Your task to perform on an android device: turn off notifications in google photos Image 0: 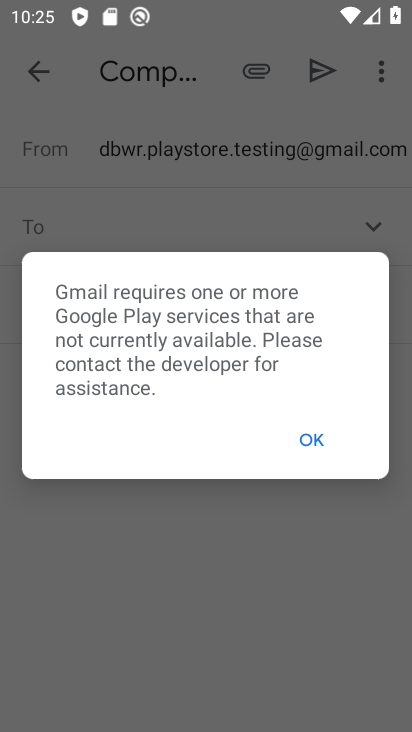
Step 0: click (303, 441)
Your task to perform on an android device: turn off notifications in google photos Image 1: 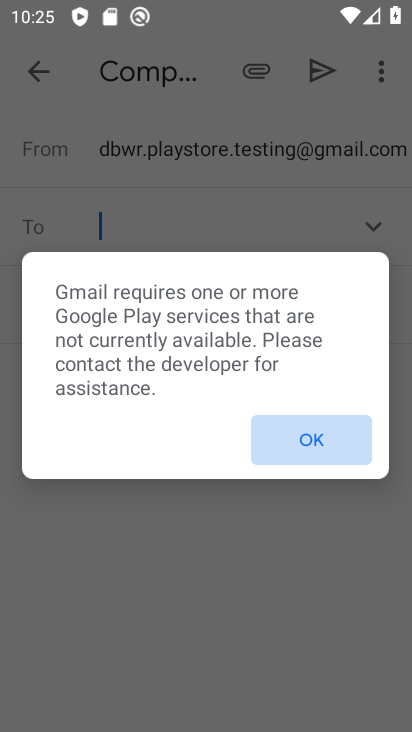
Step 1: click (311, 449)
Your task to perform on an android device: turn off notifications in google photos Image 2: 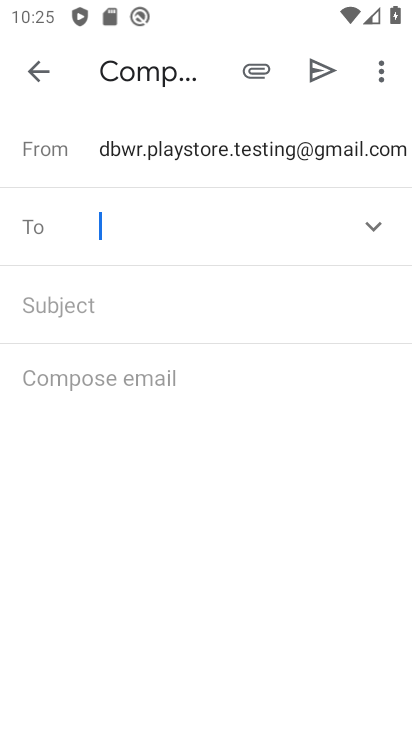
Step 2: click (311, 449)
Your task to perform on an android device: turn off notifications in google photos Image 3: 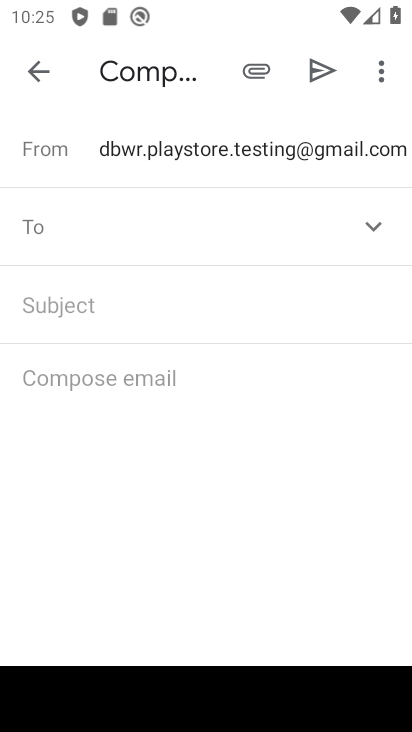
Step 3: click (46, 73)
Your task to perform on an android device: turn off notifications in google photos Image 4: 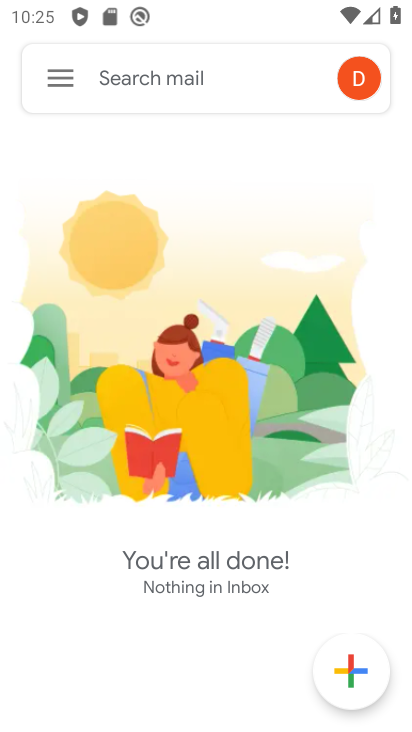
Step 4: click (58, 83)
Your task to perform on an android device: turn off notifications in google photos Image 5: 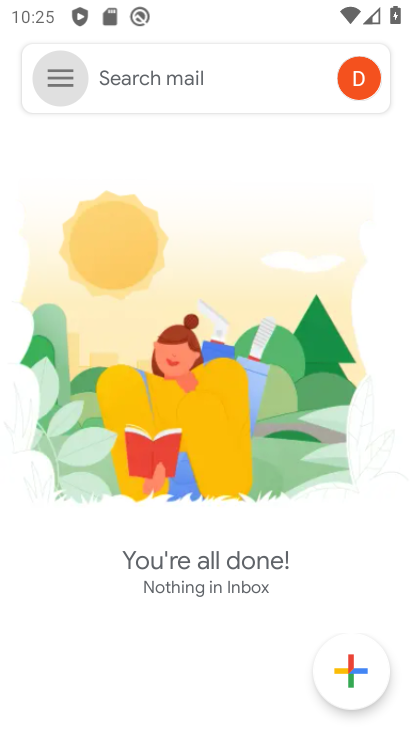
Step 5: click (58, 82)
Your task to perform on an android device: turn off notifications in google photos Image 6: 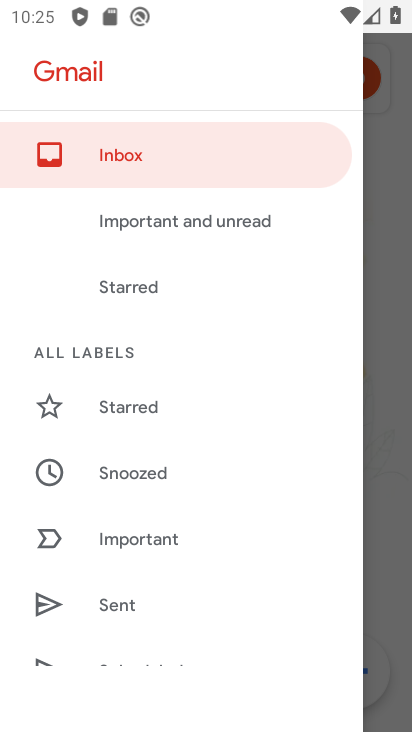
Step 6: press home button
Your task to perform on an android device: turn off notifications in google photos Image 7: 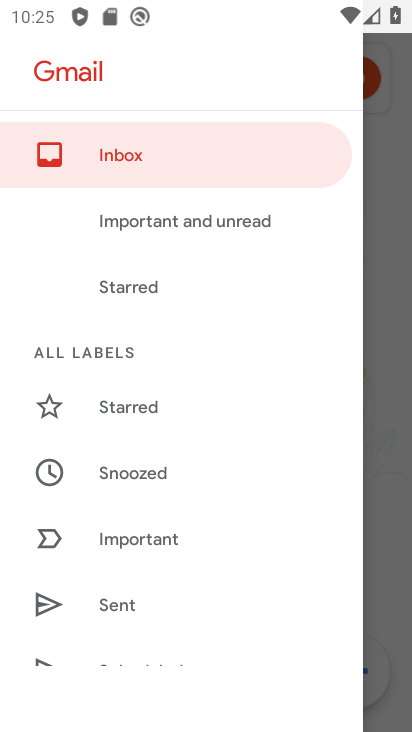
Step 7: press home button
Your task to perform on an android device: turn off notifications in google photos Image 8: 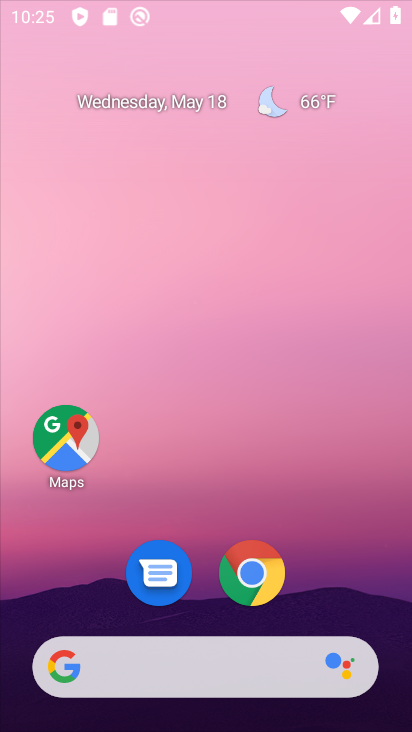
Step 8: press home button
Your task to perform on an android device: turn off notifications in google photos Image 9: 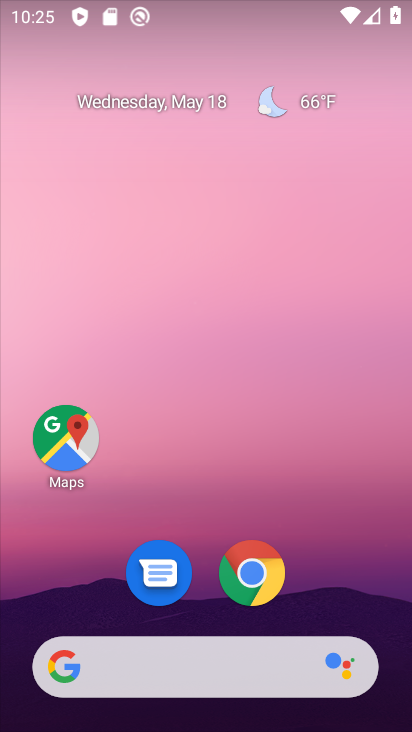
Step 9: drag from (311, 659) to (180, 127)
Your task to perform on an android device: turn off notifications in google photos Image 10: 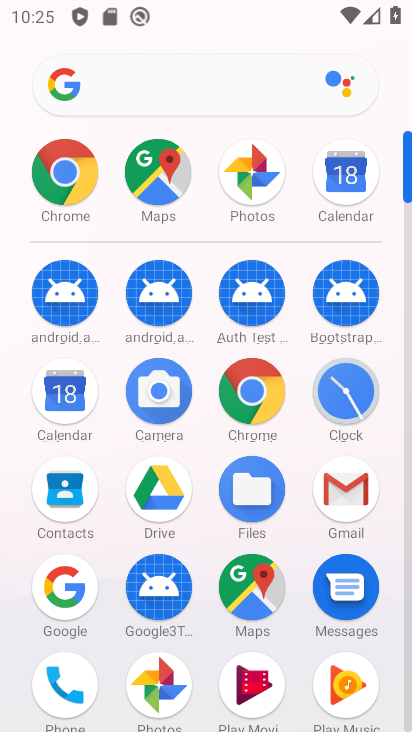
Step 10: drag from (185, 498) to (184, 134)
Your task to perform on an android device: turn off notifications in google photos Image 11: 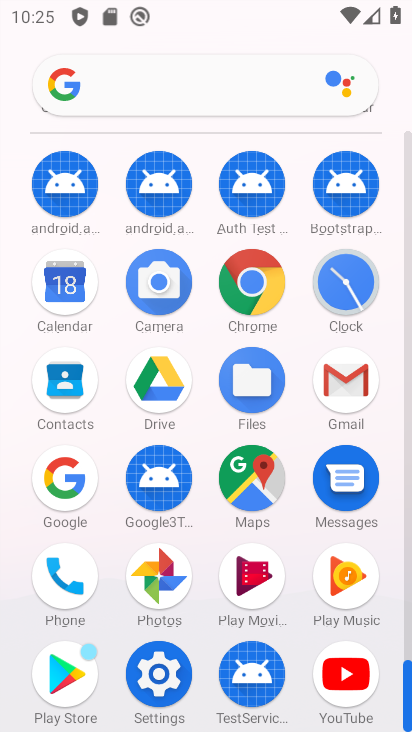
Step 11: click (163, 568)
Your task to perform on an android device: turn off notifications in google photos Image 12: 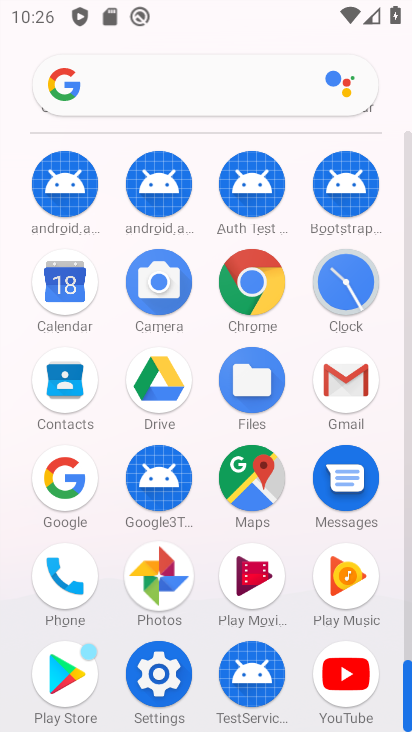
Step 12: click (161, 574)
Your task to perform on an android device: turn off notifications in google photos Image 13: 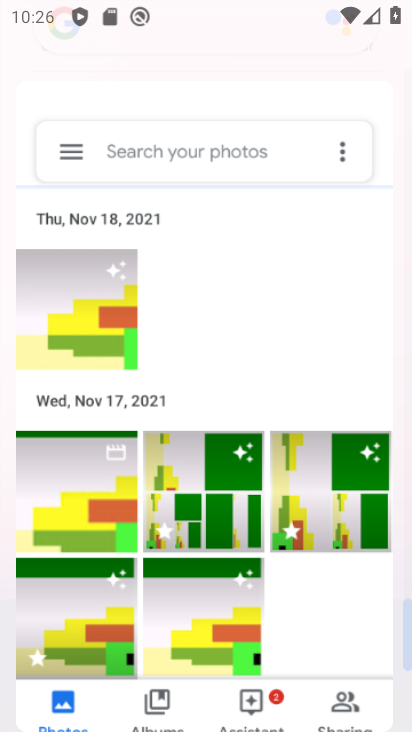
Step 13: click (161, 574)
Your task to perform on an android device: turn off notifications in google photos Image 14: 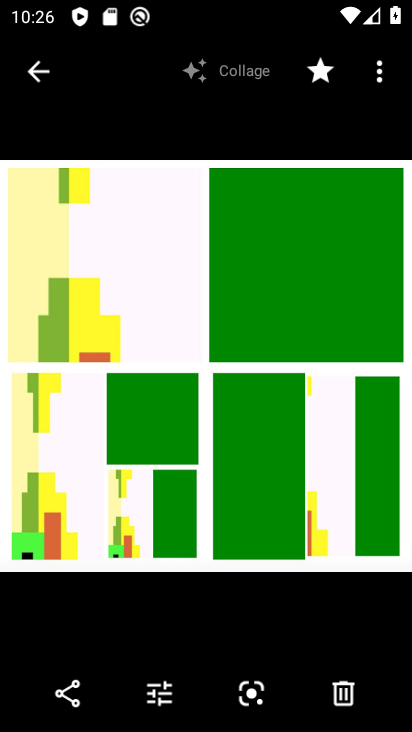
Step 14: click (48, 71)
Your task to perform on an android device: turn off notifications in google photos Image 15: 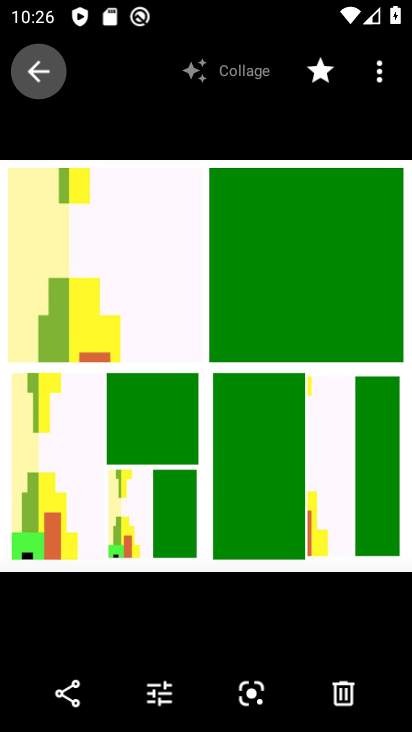
Step 15: click (48, 71)
Your task to perform on an android device: turn off notifications in google photos Image 16: 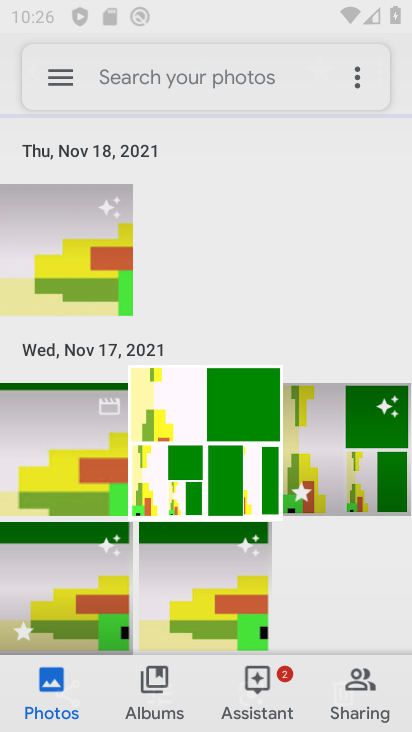
Step 16: click (48, 71)
Your task to perform on an android device: turn off notifications in google photos Image 17: 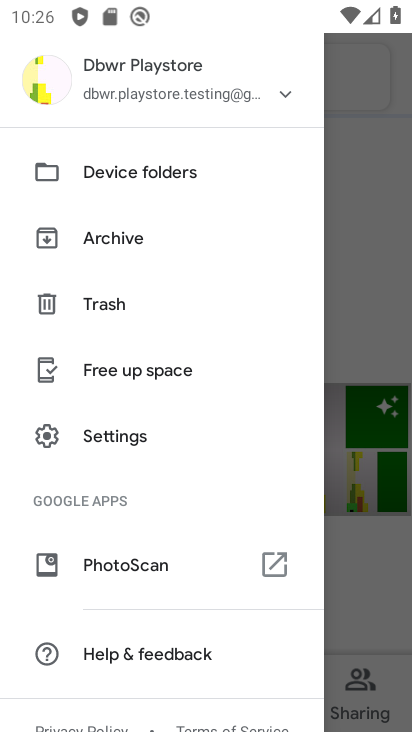
Step 17: click (372, 292)
Your task to perform on an android device: turn off notifications in google photos Image 18: 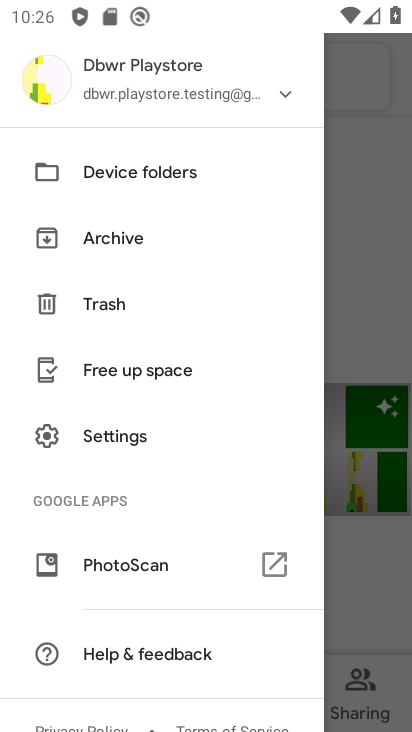
Step 18: click (372, 292)
Your task to perform on an android device: turn off notifications in google photos Image 19: 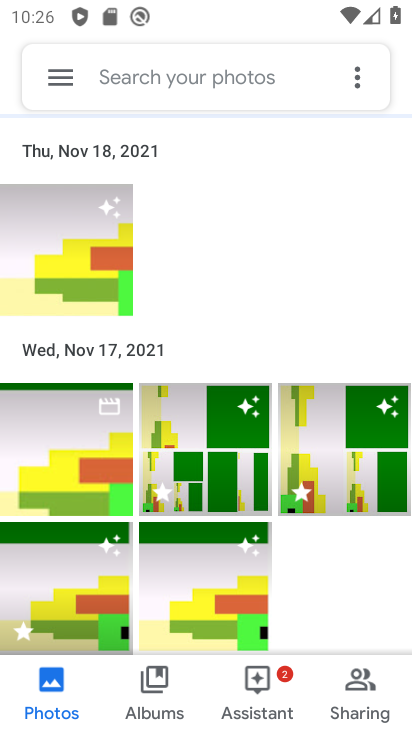
Step 19: click (54, 83)
Your task to perform on an android device: turn off notifications in google photos Image 20: 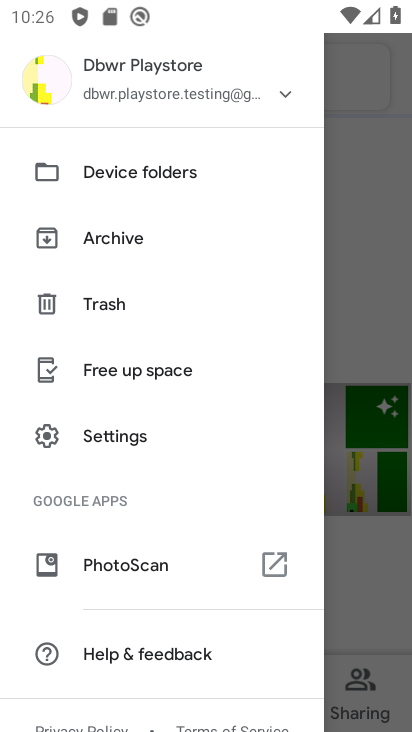
Step 20: click (372, 243)
Your task to perform on an android device: turn off notifications in google photos Image 21: 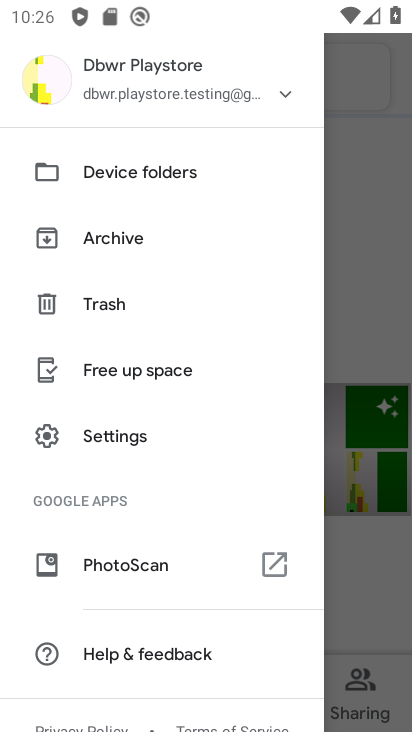
Step 21: click (377, 247)
Your task to perform on an android device: turn off notifications in google photos Image 22: 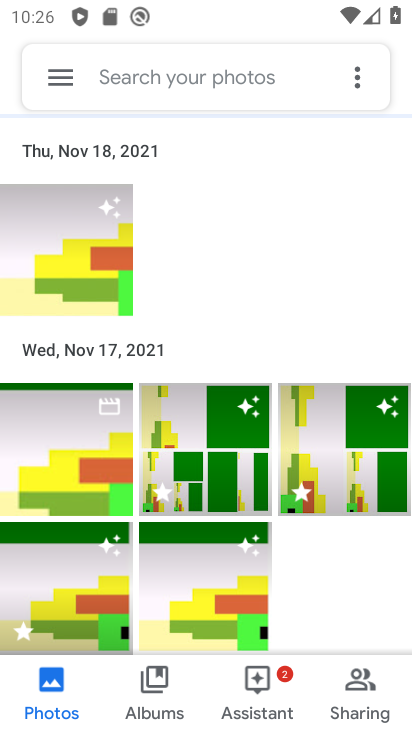
Step 22: click (375, 251)
Your task to perform on an android device: turn off notifications in google photos Image 23: 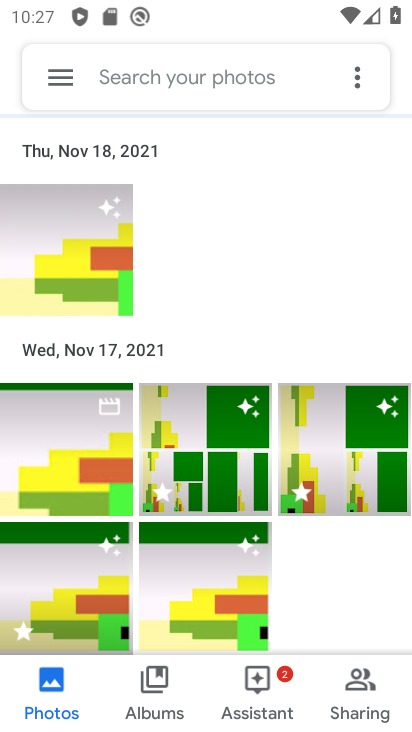
Step 23: click (63, 80)
Your task to perform on an android device: turn off notifications in google photos Image 24: 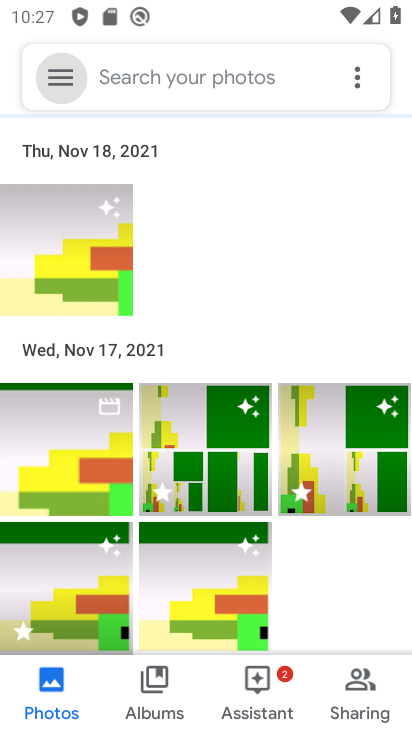
Step 24: click (63, 80)
Your task to perform on an android device: turn off notifications in google photos Image 25: 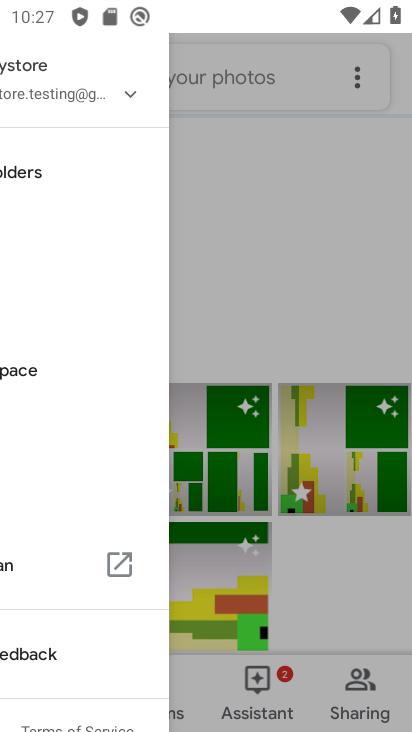
Step 25: click (64, 79)
Your task to perform on an android device: turn off notifications in google photos Image 26: 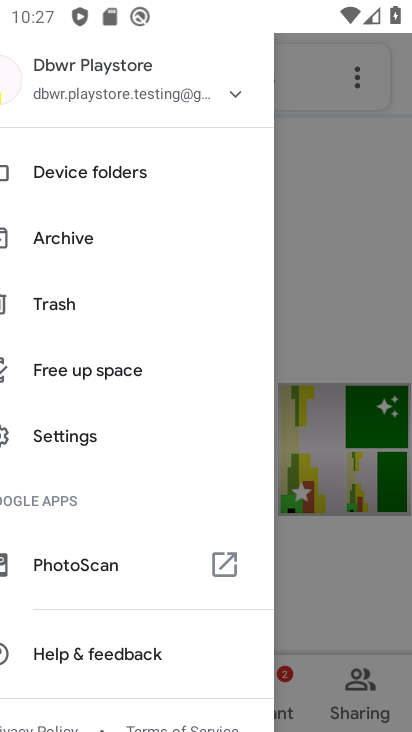
Step 26: click (64, 79)
Your task to perform on an android device: turn off notifications in google photos Image 27: 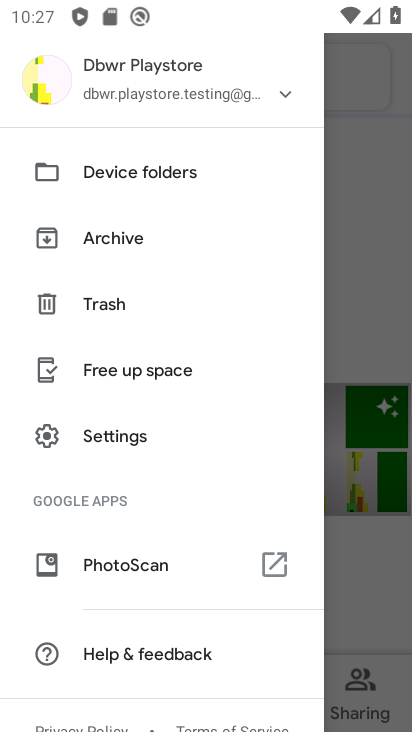
Step 27: drag from (133, 461) to (133, 57)
Your task to perform on an android device: turn off notifications in google photos Image 28: 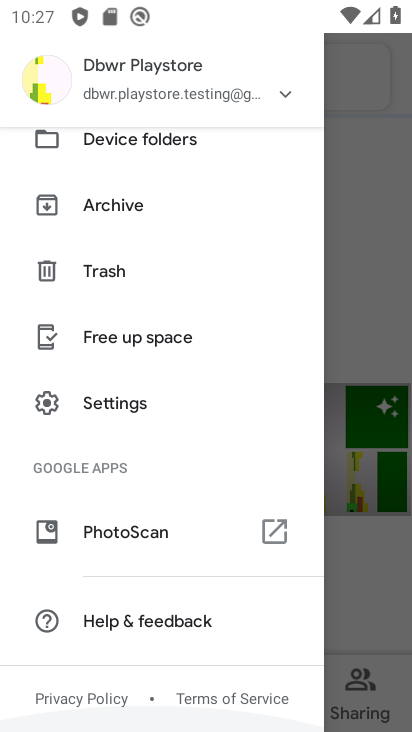
Step 28: drag from (178, 322) to (179, 90)
Your task to perform on an android device: turn off notifications in google photos Image 29: 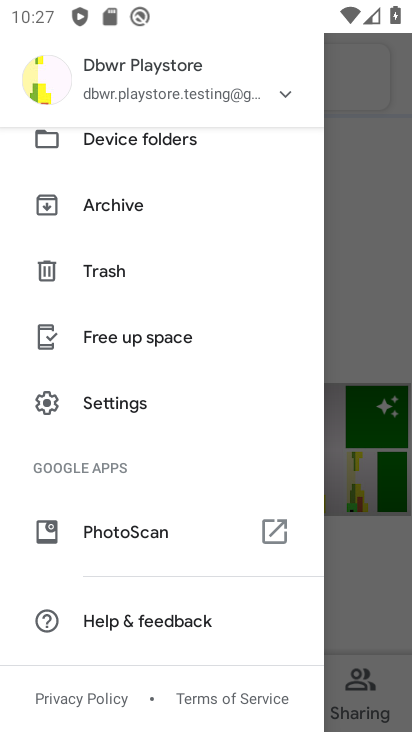
Step 29: click (115, 404)
Your task to perform on an android device: turn off notifications in google photos Image 30: 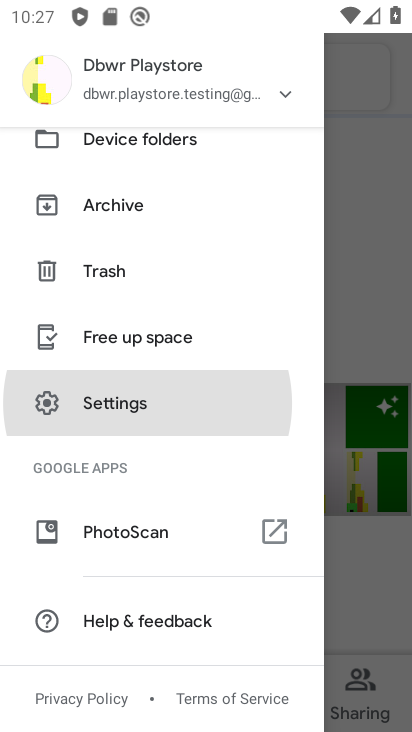
Step 30: click (115, 404)
Your task to perform on an android device: turn off notifications in google photos Image 31: 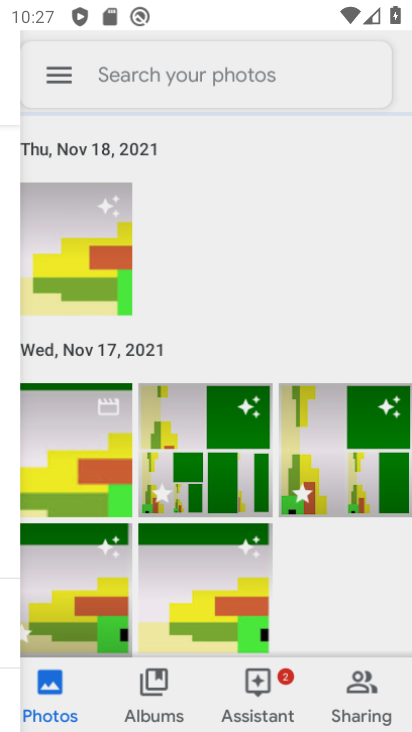
Step 31: click (114, 398)
Your task to perform on an android device: turn off notifications in google photos Image 32: 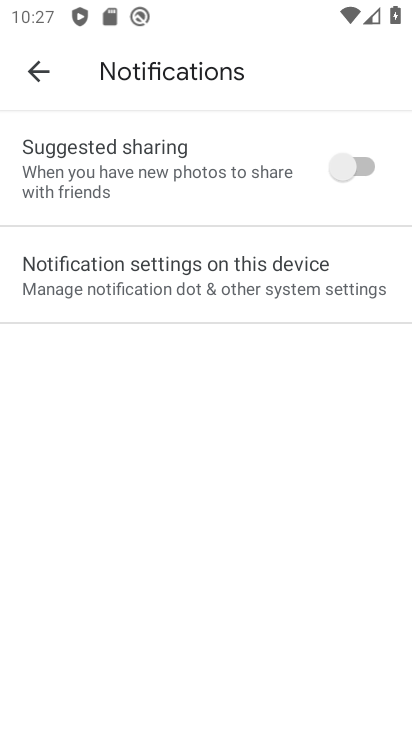
Step 32: click (244, 263)
Your task to perform on an android device: turn off notifications in google photos Image 33: 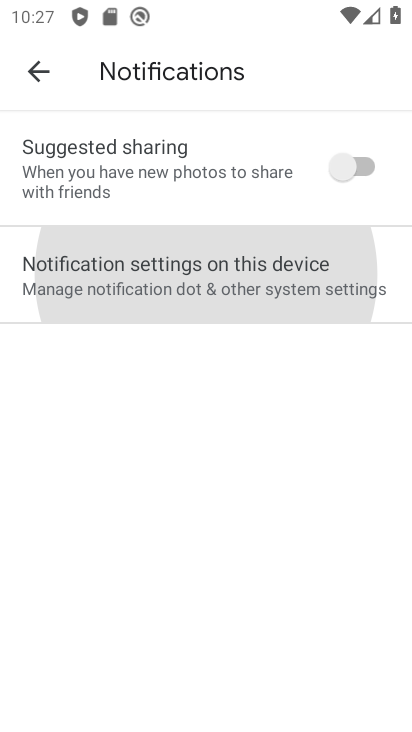
Step 33: click (241, 263)
Your task to perform on an android device: turn off notifications in google photos Image 34: 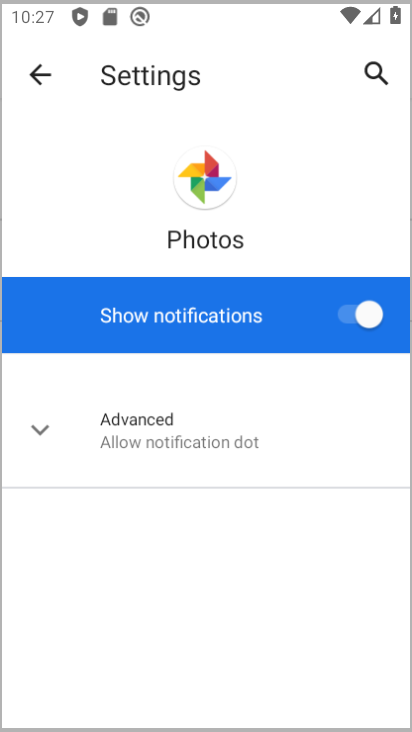
Step 34: click (242, 259)
Your task to perform on an android device: turn off notifications in google photos Image 35: 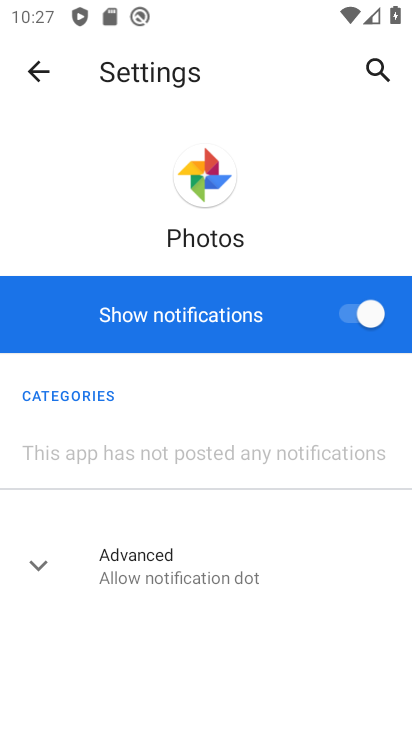
Step 35: click (370, 308)
Your task to perform on an android device: turn off notifications in google photos Image 36: 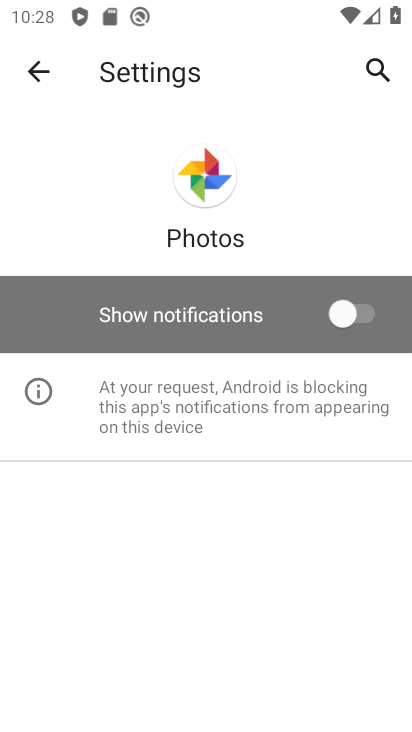
Step 36: click (32, 70)
Your task to perform on an android device: turn off notifications in google photos Image 37: 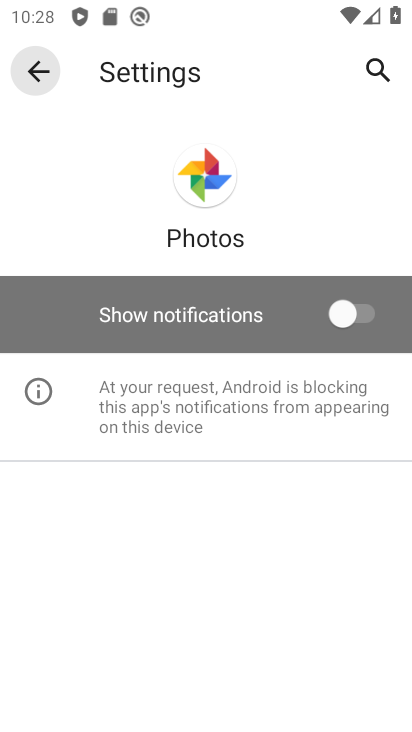
Step 37: click (32, 70)
Your task to perform on an android device: turn off notifications in google photos Image 38: 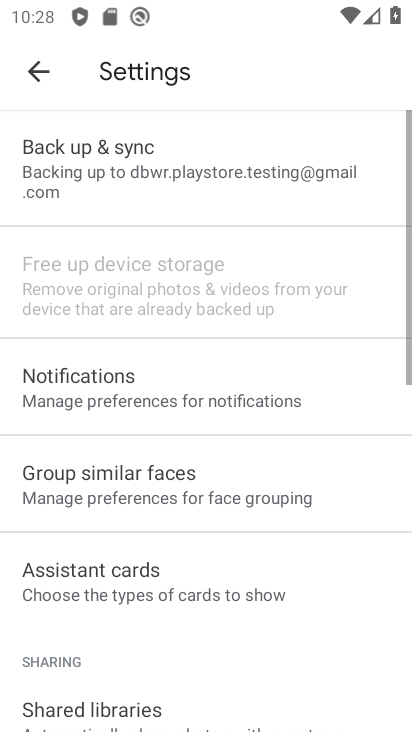
Step 38: click (32, 70)
Your task to perform on an android device: turn off notifications in google photos Image 39: 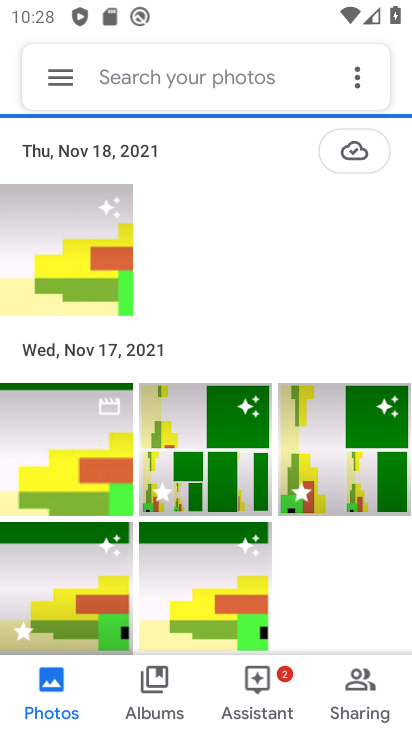
Step 39: press back button
Your task to perform on an android device: turn off notifications in google photos Image 40: 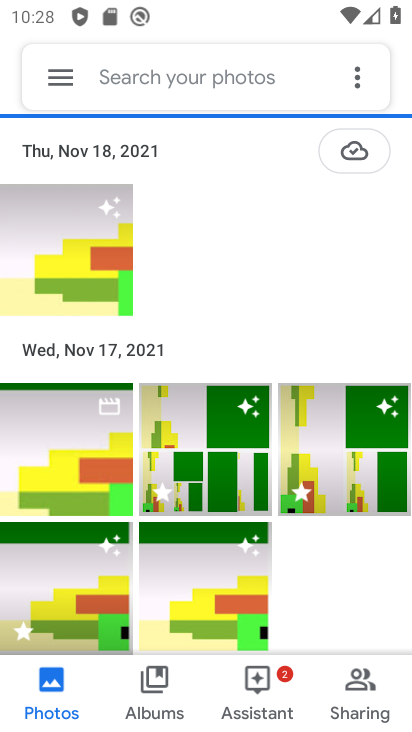
Step 40: press home button
Your task to perform on an android device: turn off notifications in google photos Image 41: 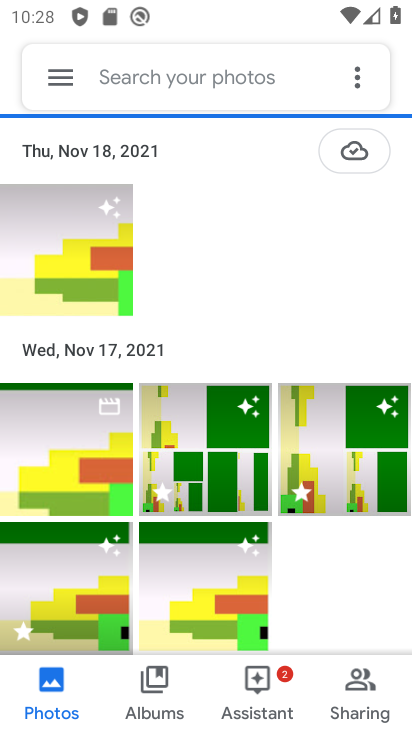
Step 41: click (33, 73)
Your task to perform on an android device: turn off notifications in google photos Image 42: 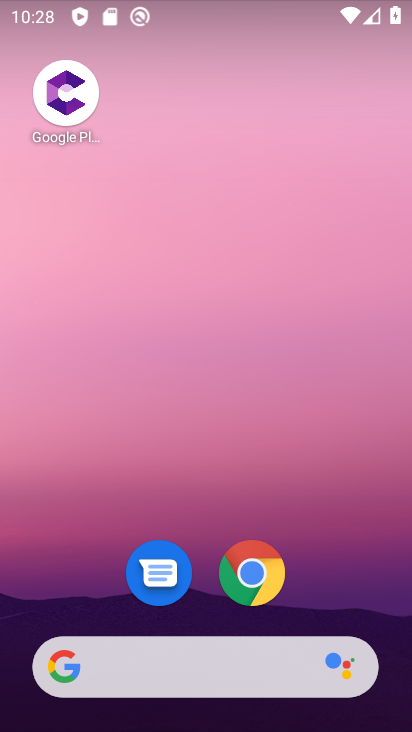
Step 42: drag from (223, 296) to (148, 79)
Your task to perform on an android device: turn off notifications in google photos Image 43: 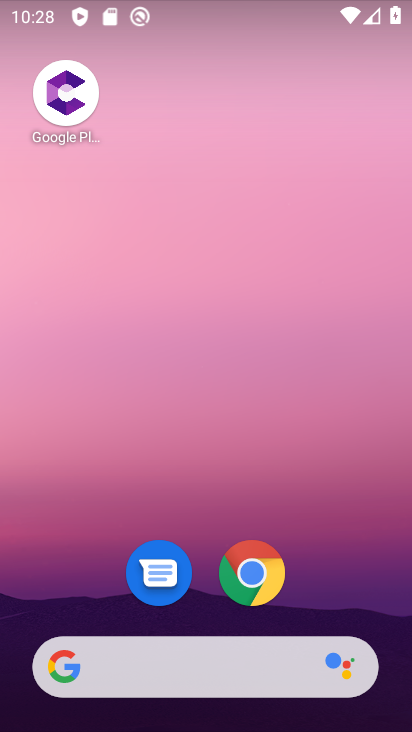
Step 43: drag from (322, 494) to (156, 54)
Your task to perform on an android device: turn off notifications in google photos Image 44: 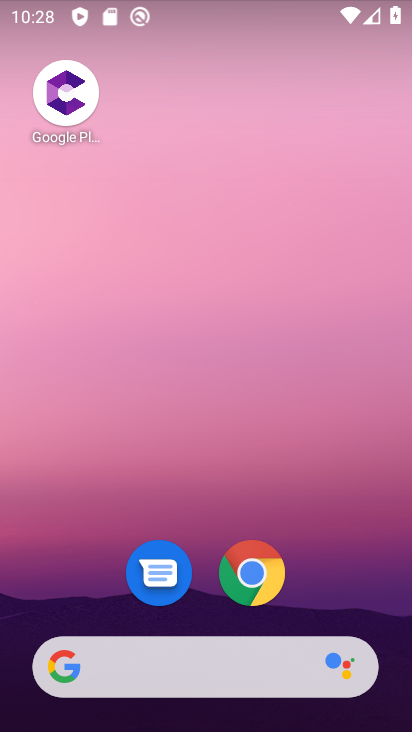
Step 44: drag from (190, 271) to (121, 17)
Your task to perform on an android device: turn off notifications in google photos Image 45: 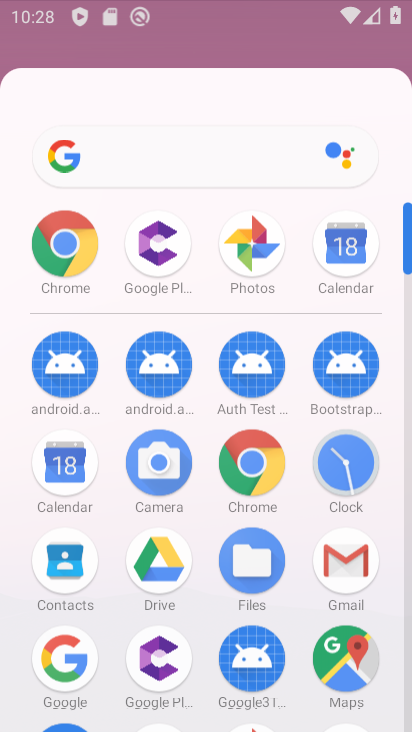
Step 45: drag from (241, 389) to (150, 25)
Your task to perform on an android device: turn off notifications in google photos Image 46: 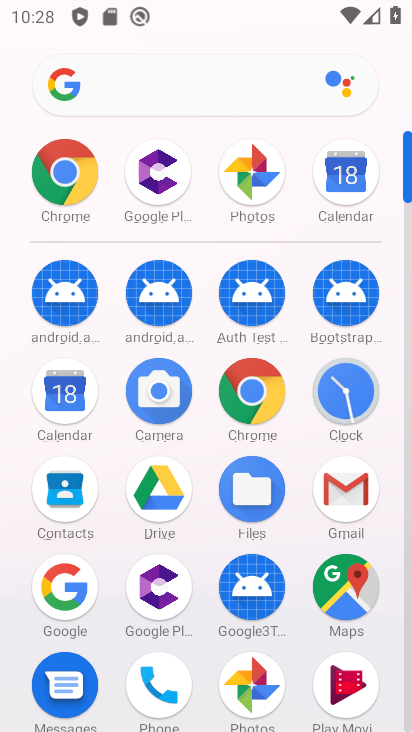
Step 46: drag from (254, 346) to (85, 48)
Your task to perform on an android device: turn off notifications in google photos Image 47: 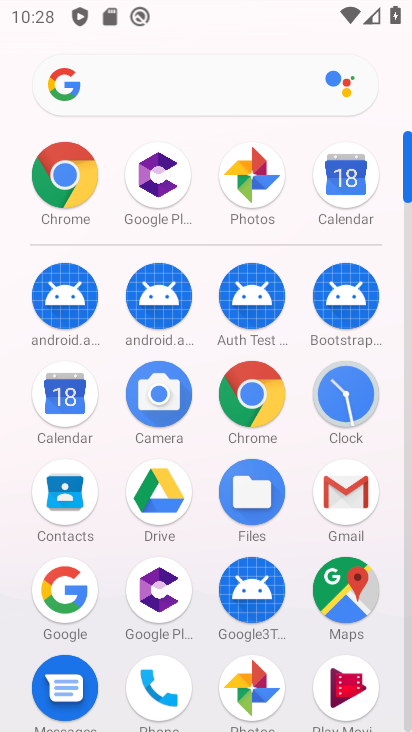
Step 47: drag from (293, 486) to (89, 41)
Your task to perform on an android device: turn off notifications in google photos Image 48: 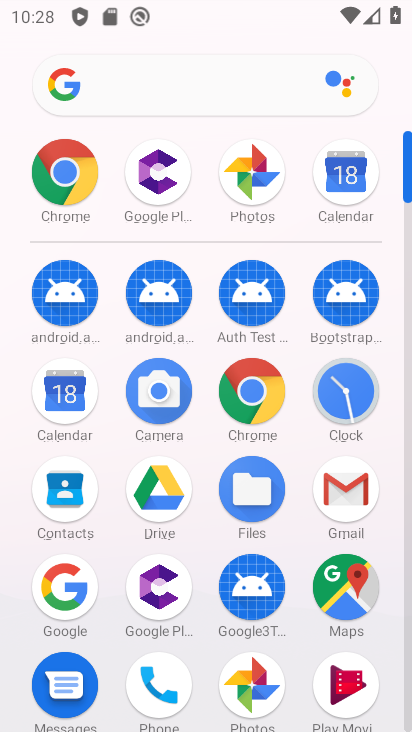
Step 48: click (240, 679)
Your task to perform on an android device: turn off notifications in google photos Image 49: 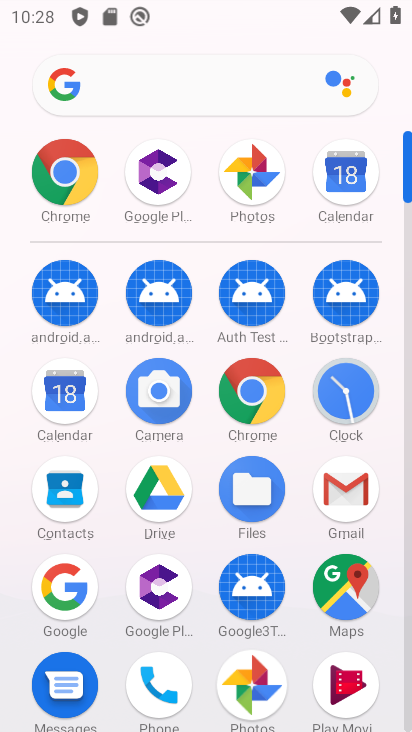
Step 49: click (240, 679)
Your task to perform on an android device: turn off notifications in google photos Image 50: 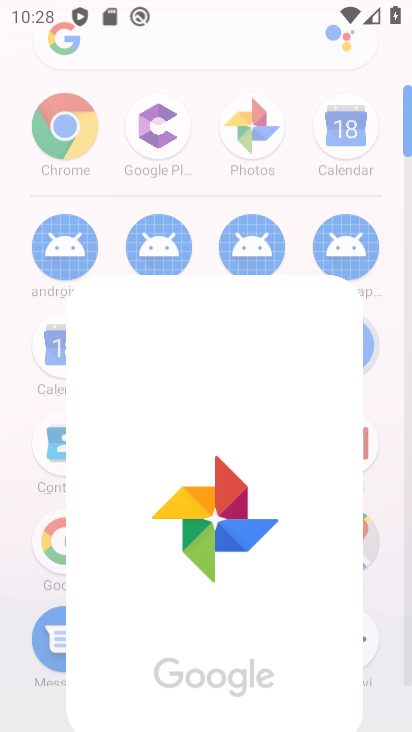
Step 50: click (240, 679)
Your task to perform on an android device: turn off notifications in google photos Image 51: 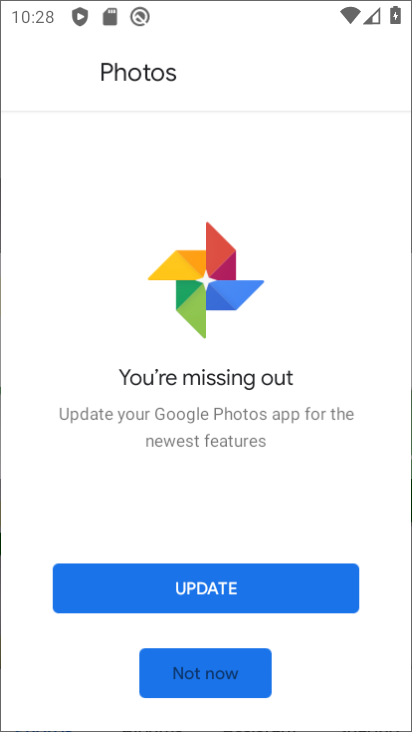
Step 51: click (240, 679)
Your task to perform on an android device: turn off notifications in google photos Image 52: 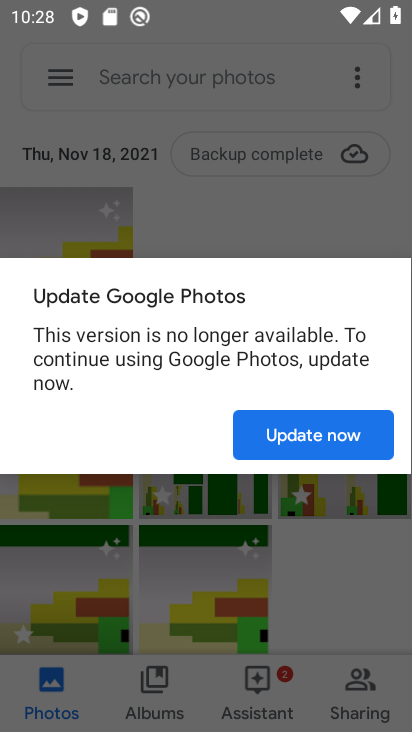
Step 52: click (296, 429)
Your task to perform on an android device: turn off notifications in google photos Image 53: 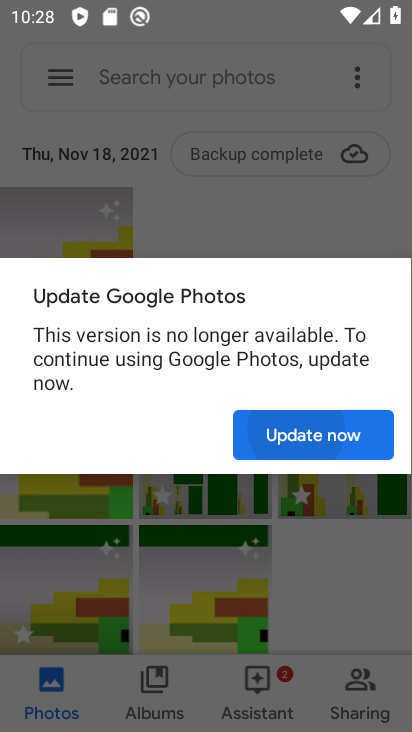
Step 53: click (296, 429)
Your task to perform on an android device: turn off notifications in google photos Image 54: 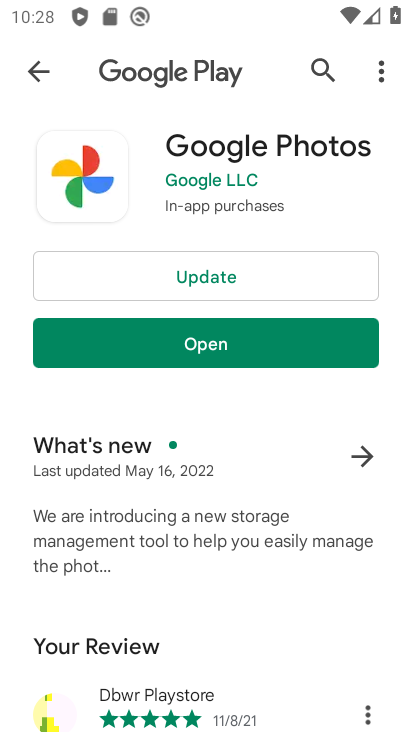
Step 54: click (225, 281)
Your task to perform on an android device: turn off notifications in google photos Image 55: 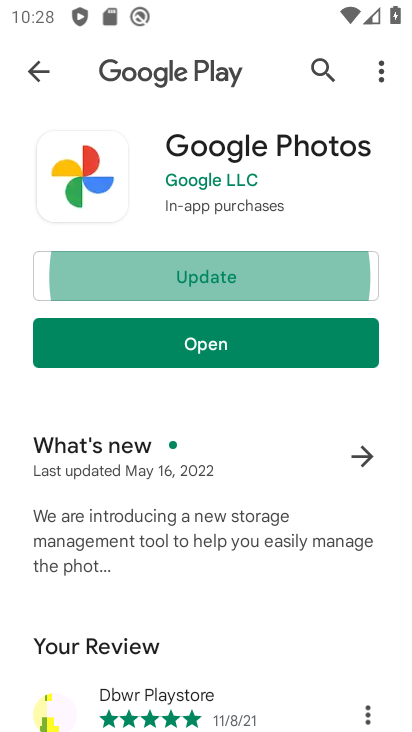
Step 55: click (226, 280)
Your task to perform on an android device: turn off notifications in google photos Image 56: 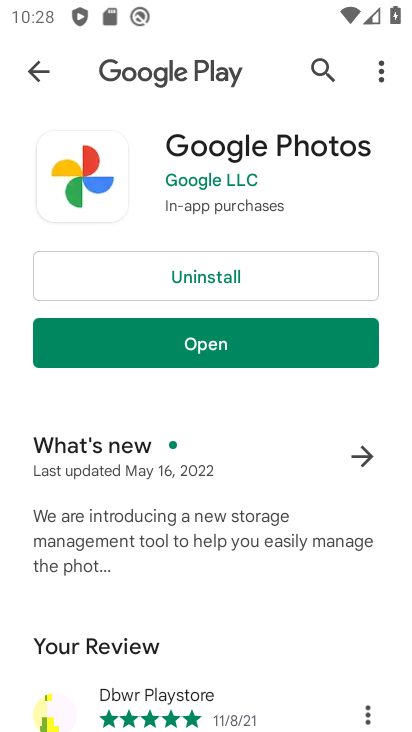
Step 56: click (194, 336)
Your task to perform on an android device: turn off notifications in google photos Image 57: 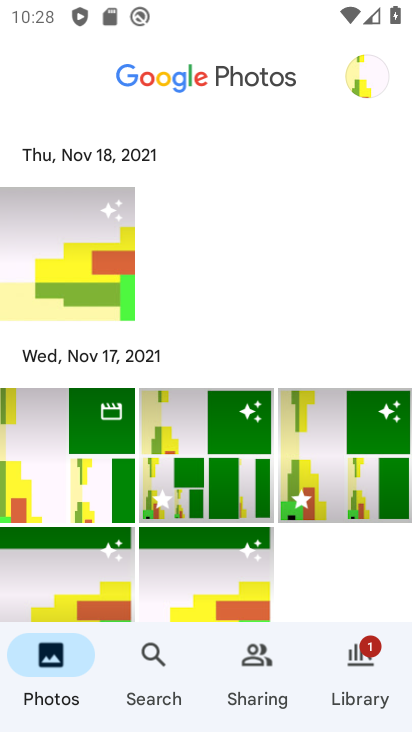
Step 57: task complete